Your task to perform on an android device: Open the Play Movies app and select the watchlist tab. Image 0: 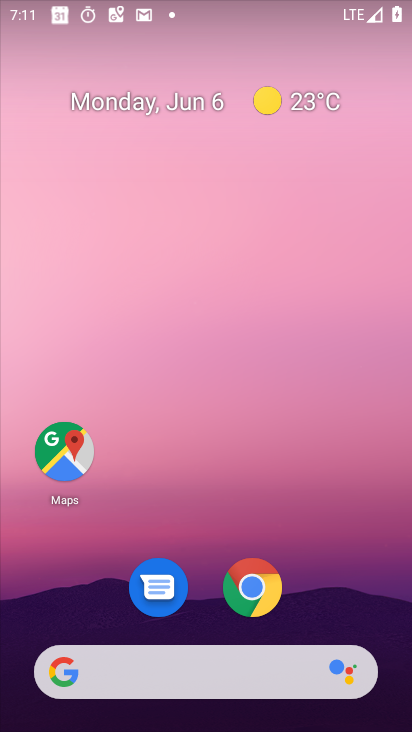
Step 0: drag from (394, 651) to (262, 31)
Your task to perform on an android device: Open the Play Movies app and select the watchlist tab. Image 1: 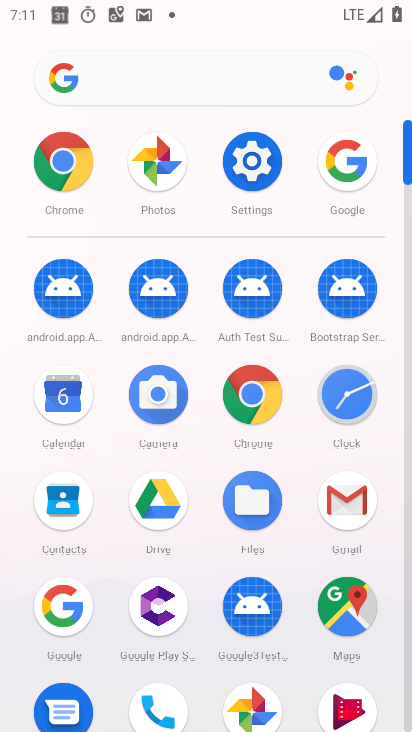
Step 1: click (325, 712)
Your task to perform on an android device: Open the Play Movies app and select the watchlist tab. Image 2: 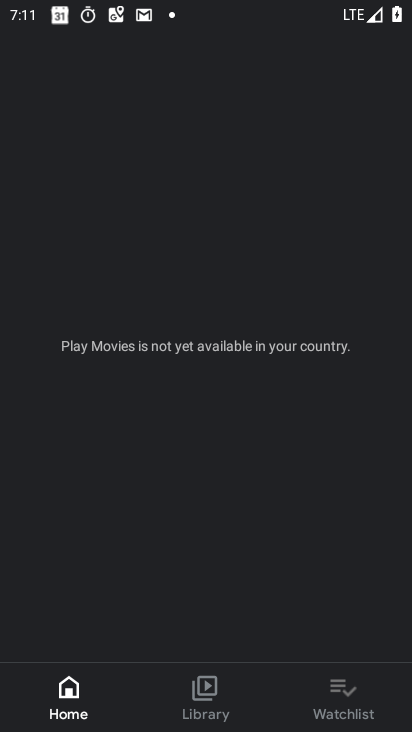
Step 2: click (344, 688)
Your task to perform on an android device: Open the Play Movies app and select the watchlist tab. Image 3: 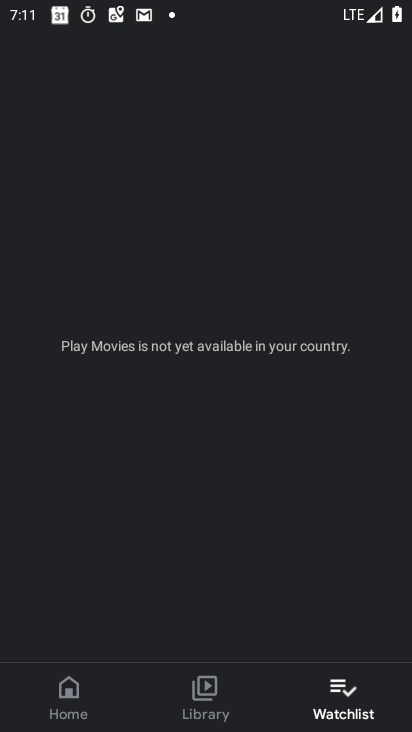
Step 3: task complete